Your task to perform on an android device: turn on airplane mode Image 0: 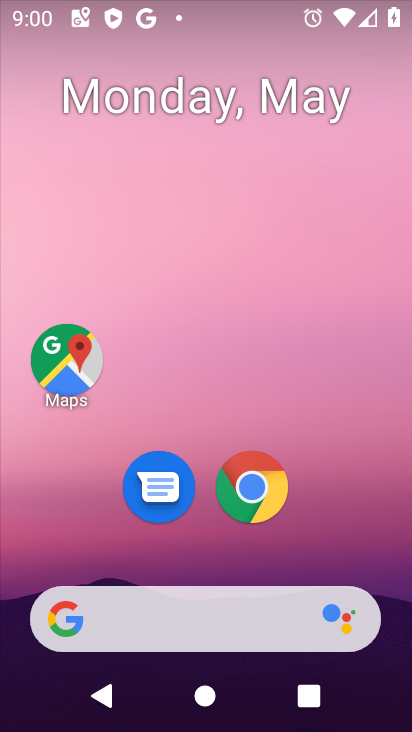
Step 0: drag from (226, 23) to (301, 549)
Your task to perform on an android device: turn on airplane mode Image 1: 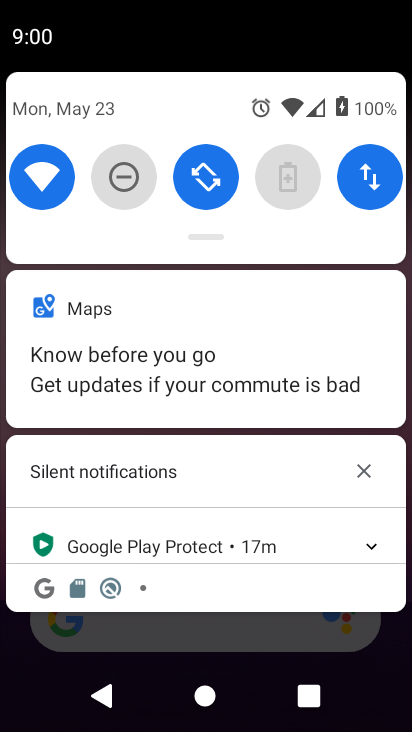
Step 1: drag from (222, 118) to (227, 496)
Your task to perform on an android device: turn on airplane mode Image 2: 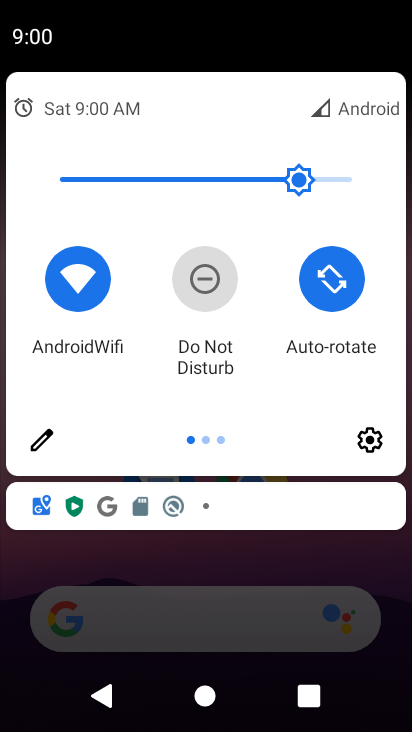
Step 2: drag from (369, 370) to (8, 386)
Your task to perform on an android device: turn on airplane mode Image 3: 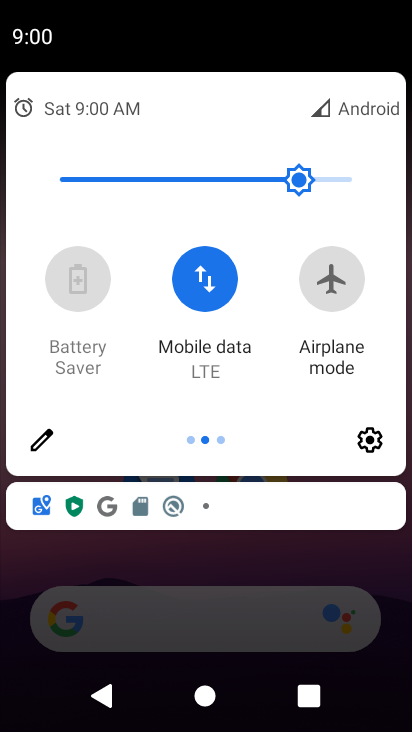
Step 3: click (332, 284)
Your task to perform on an android device: turn on airplane mode Image 4: 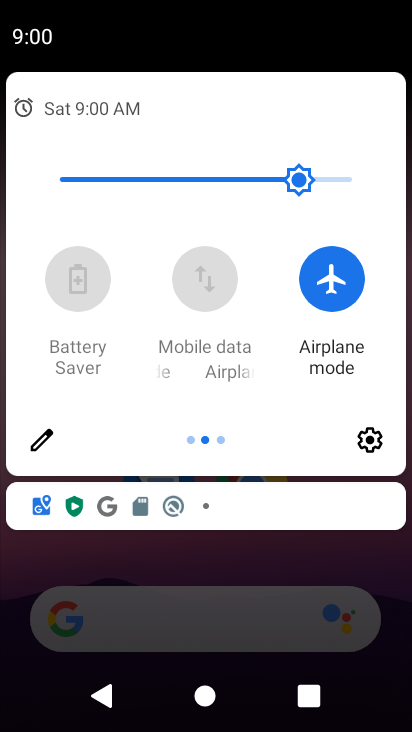
Step 4: task complete